Your task to perform on an android device: What's the weather like in New York? Image 0: 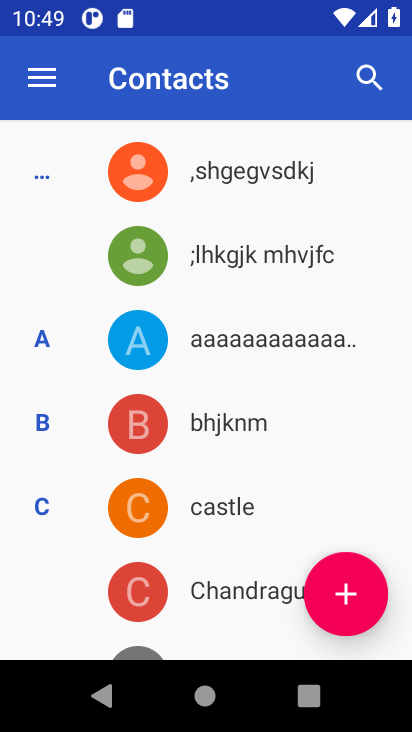
Step 0: press home button
Your task to perform on an android device: What's the weather like in New York? Image 1: 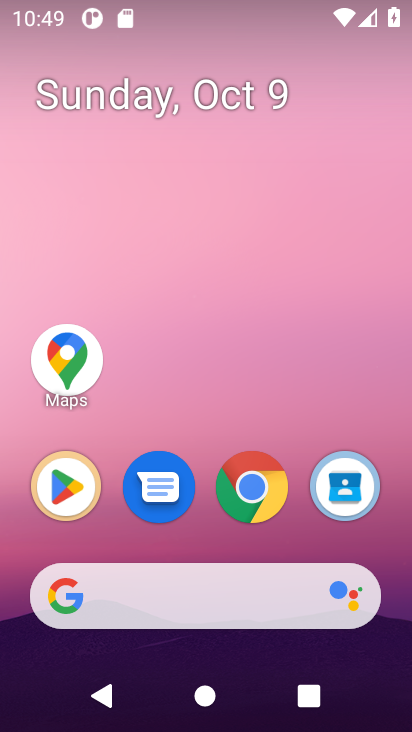
Step 1: click (263, 498)
Your task to perform on an android device: What's the weather like in New York? Image 2: 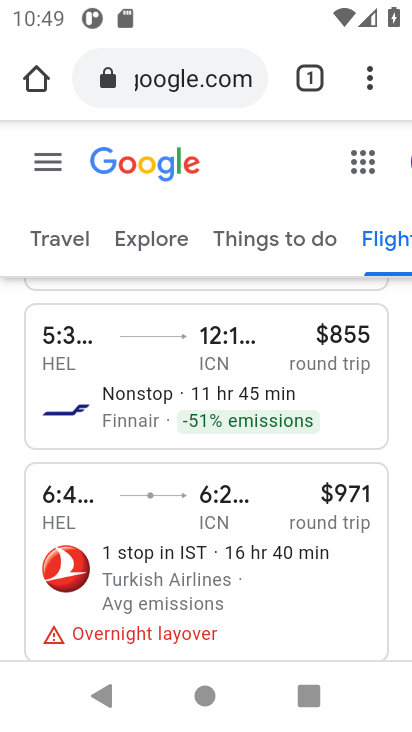
Step 2: click (166, 82)
Your task to perform on an android device: What's the weather like in New York? Image 3: 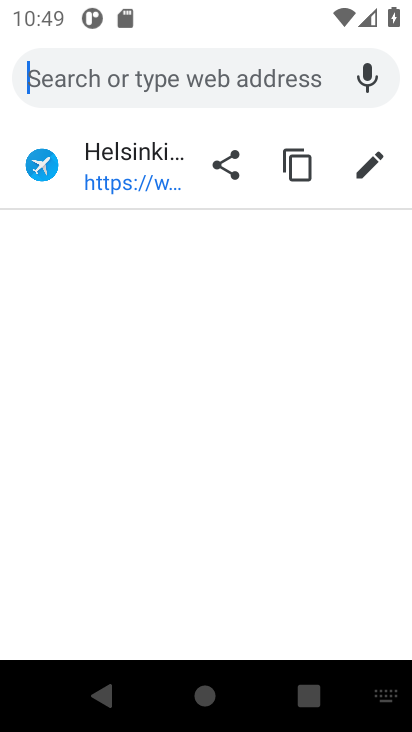
Step 3: type "weather like in new york"
Your task to perform on an android device: What's the weather like in New York? Image 4: 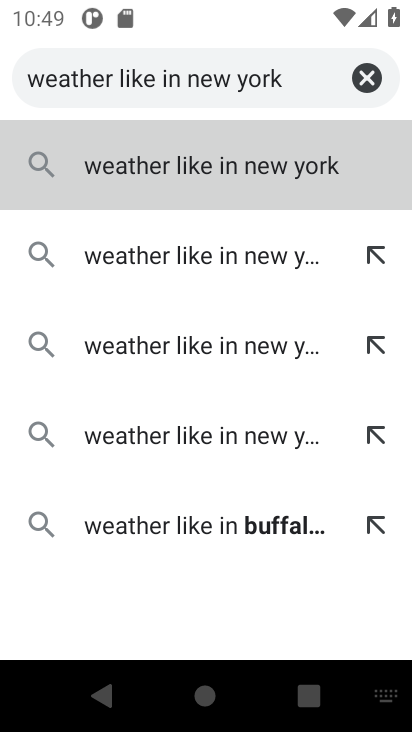
Step 4: type ""
Your task to perform on an android device: What's the weather like in New York? Image 5: 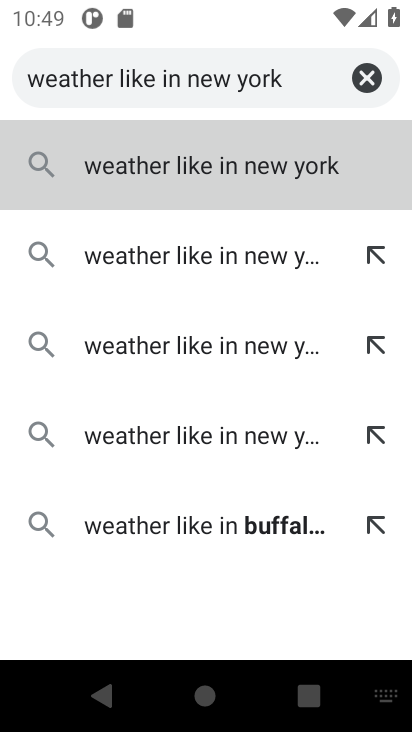
Step 5: press enter
Your task to perform on an android device: What's the weather like in New York? Image 6: 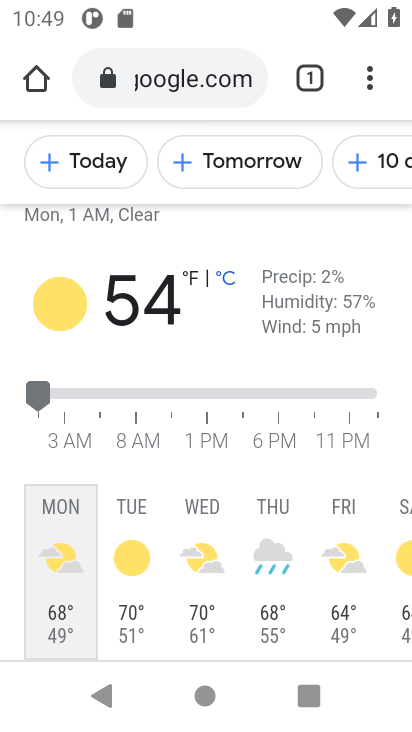
Step 6: task complete